Your task to perform on an android device: change your default location settings in chrome Image 0: 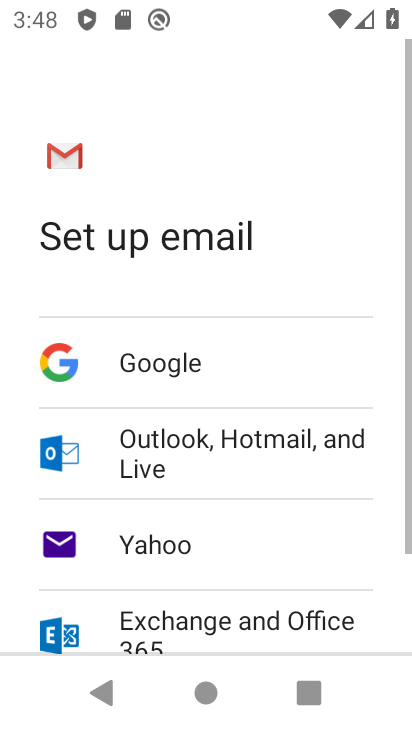
Step 0: press home button
Your task to perform on an android device: change your default location settings in chrome Image 1: 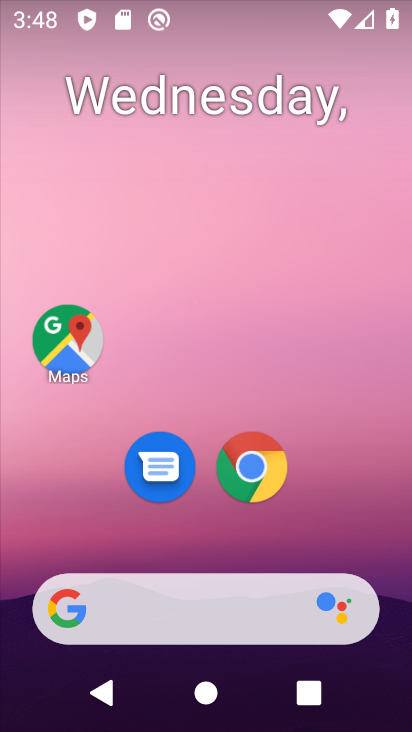
Step 1: click (269, 467)
Your task to perform on an android device: change your default location settings in chrome Image 2: 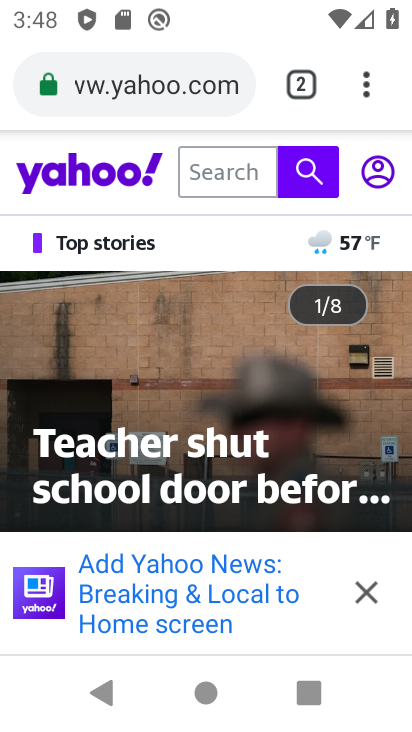
Step 2: click (355, 86)
Your task to perform on an android device: change your default location settings in chrome Image 3: 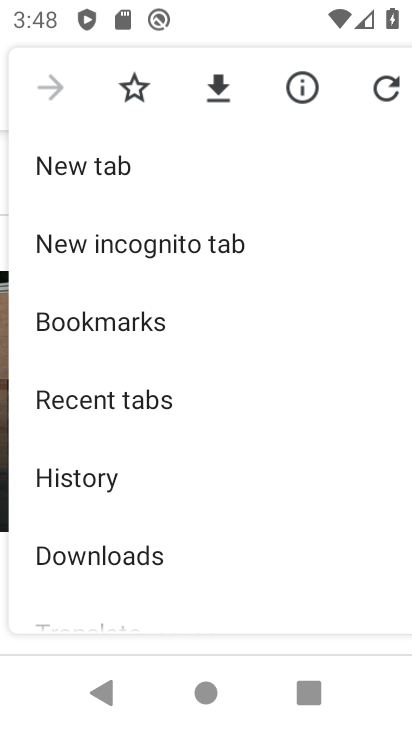
Step 3: drag from (217, 444) to (185, 17)
Your task to perform on an android device: change your default location settings in chrome Image 4: 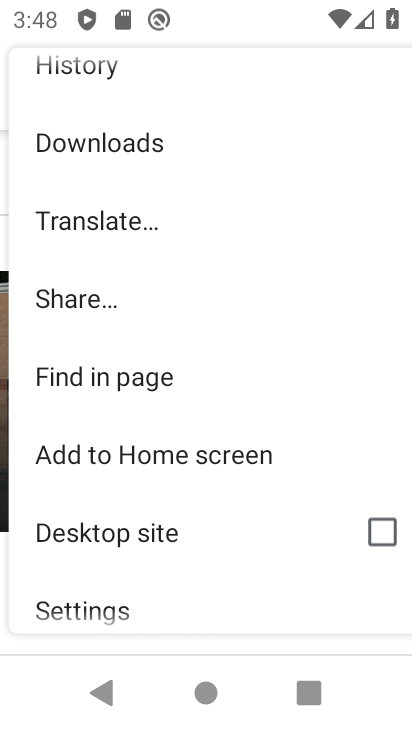
Step 4: click (157, 602)
Your task to perform on an android device: change your default location settings in chrome Image 5: 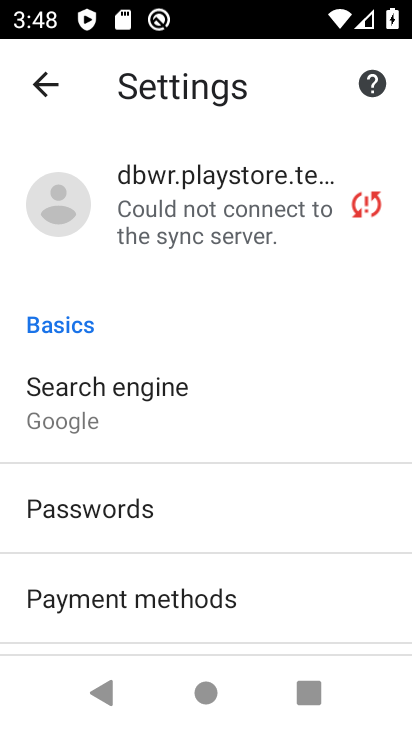
Step 5: drag from (198, 542) to (213, 160)
Your task to perform on an android device: change your default location settings in chrome Image 6: 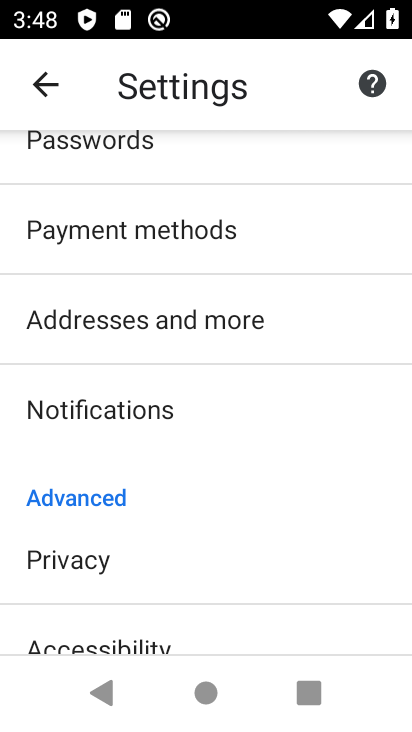
Step 6: drag from (167, 500) to (197, 14)
Your task to perform on an android device: change your default location settings in chrome Image 7: 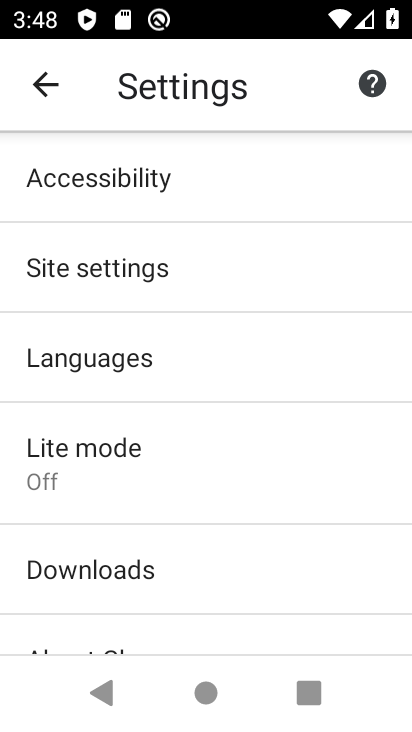
Step 7: drag from (130, 487) to (149, 174)
Your task to perform on an android device: change your default location settings in chrome Image 8: 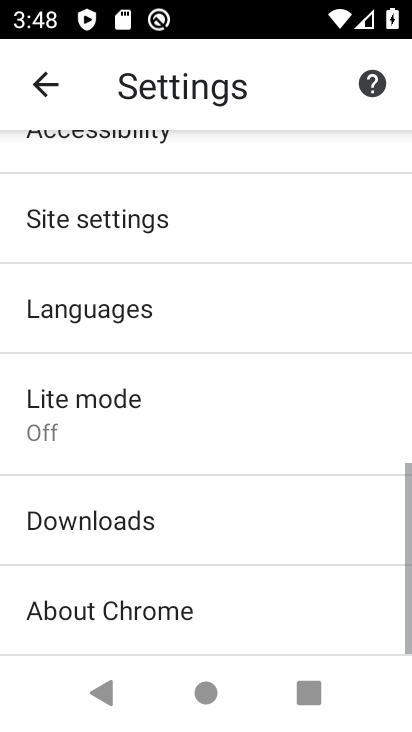
Step 8: click (143, 218)
Your task to perform on an android device: change your default location settings in chrome Image 9: 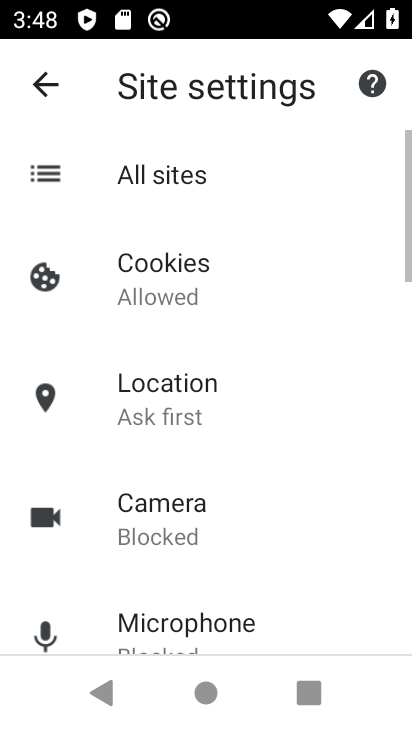
Step 9: click (202, 409)
Your task to perform on an android device: change your default location settings in chrome Image 10: 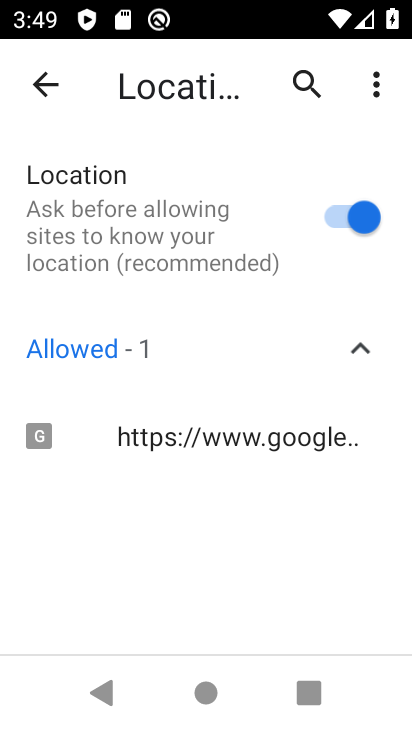
Step 10: click (333, 212)
Your task to perform on an android device: change your default location settings in chrome Image 11: 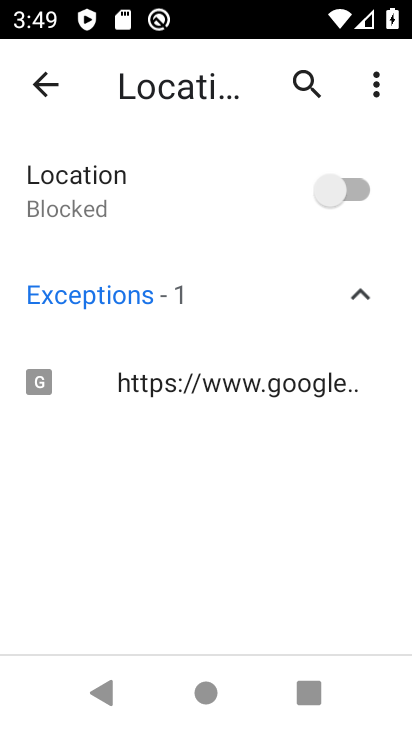
Step 11: task complete